Your task to perform on an android device: turn off sleep mode Image 0: 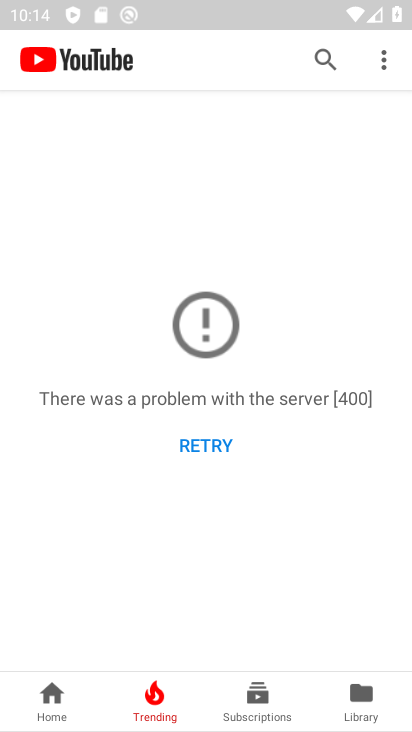
Step 0: press back button
Your task to perform on an android device: turn off sleep mode Image 1: 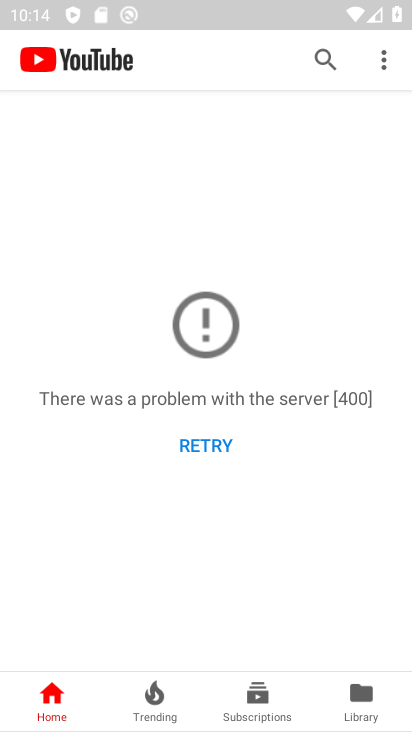
Step 1: press home button
Your task to perform on an android device: turn off sleep mode Image 2: 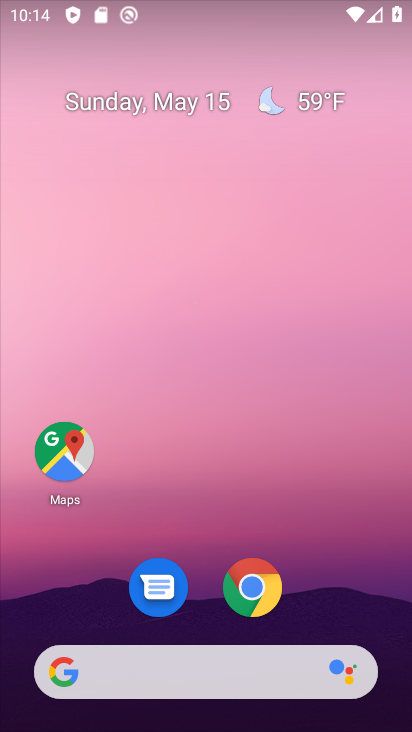
Step 2: drag from (84, 640) to (208, 199)
Your task to perform on an android device: turn off sleep mode Image 3: 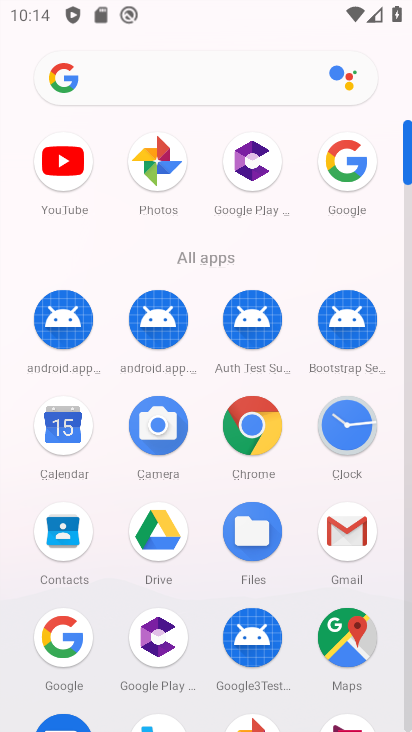
Step 3: drag from (190, 608) to (238, 411)
Your task to perform on an android device: turn off sleep mode Image 4: 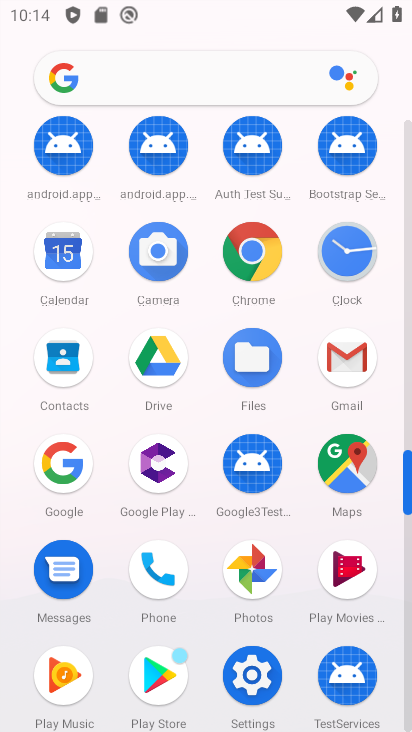
Step 4: click (252, 686)
Your task to perform on an android device: turn off sleep mode Image 5: 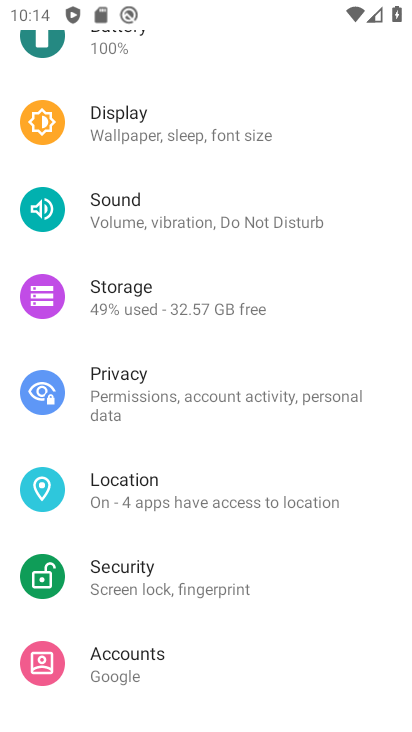
Step 5: click (233, 144)
Your task to perform on an android device: turn off sleep mode Image 6: 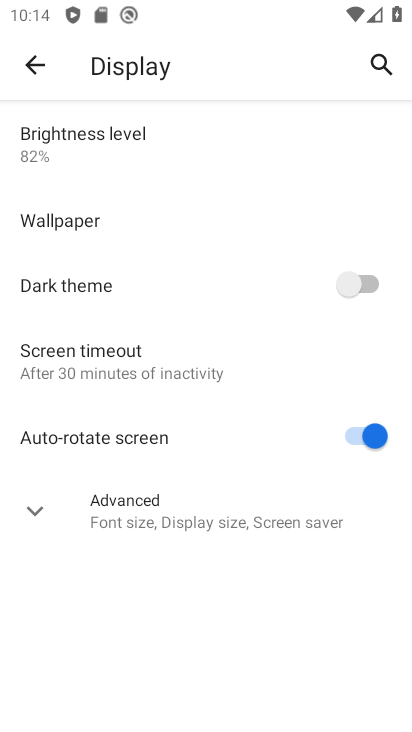
Step 6: click (200, 500)
Your task to perform on an android device: turn off sleep mode Image 7: 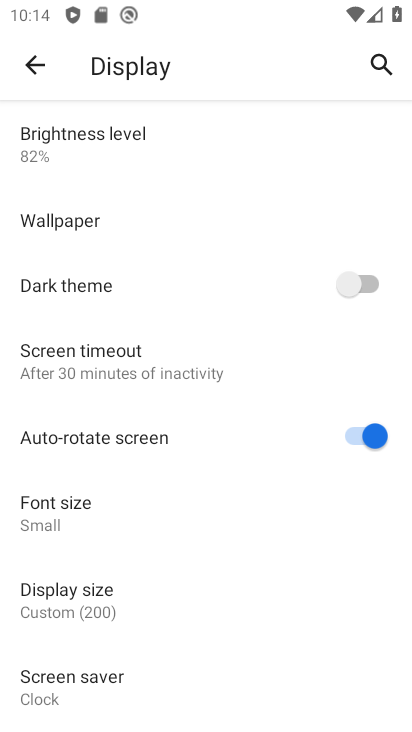
Step 7: task complete